Your task to perform on an android device: delete a single message in the gmail app Image 0: 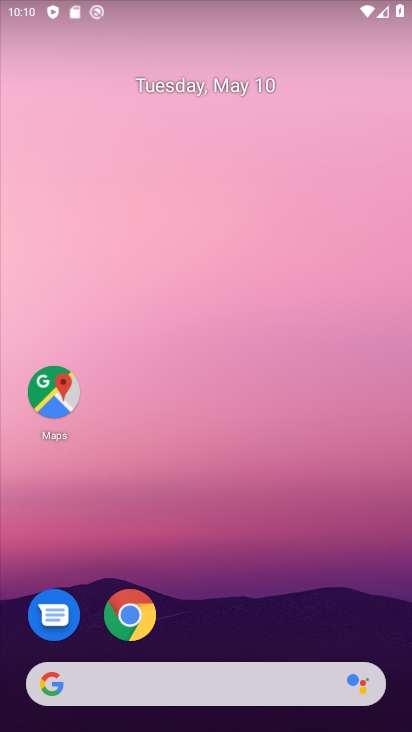
Step 0: drag from (259, 608) to (126, 113)
Your task to perform on an android device: delete a single message in the gmail app Image 1: 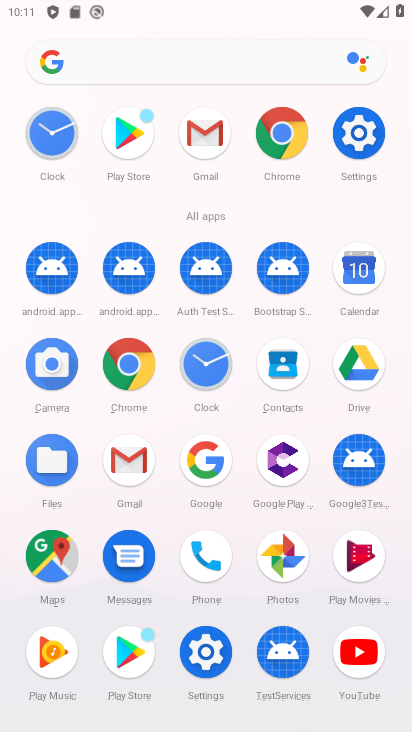
Step 1: click (210, 131)
Your task to perform on an android device: delete a single message in the gmail app Image 2: 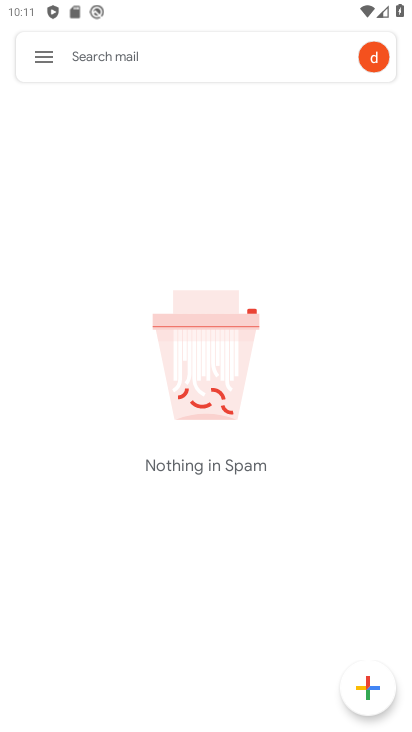
Step 2: click (49, 56)
Your task to perform on an android device: delete a single message in the gmail app Image 3: 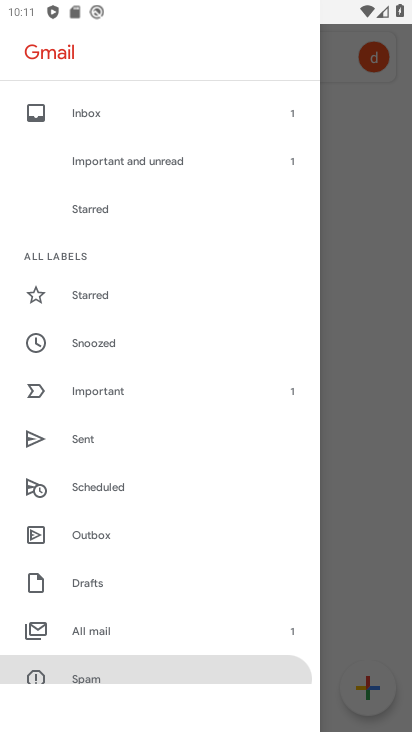
Step 3: click (91, 112)
Your task to perform on an android device: delete a single message in the gmail app Image 4: 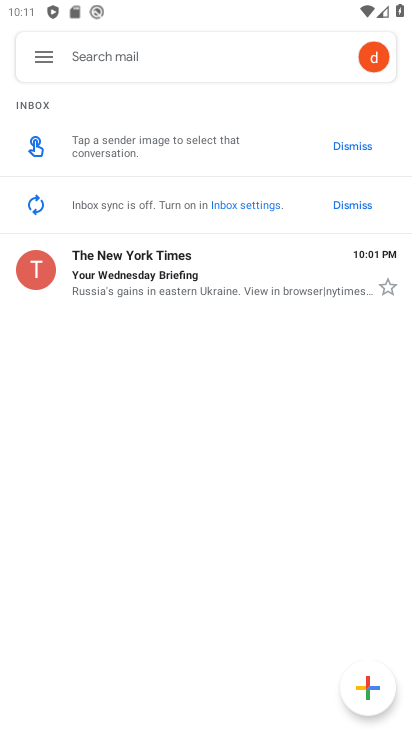
Step 4: click (152, 283)
Your task to perform on an android device: delete a single message in the gmail app Image 5: 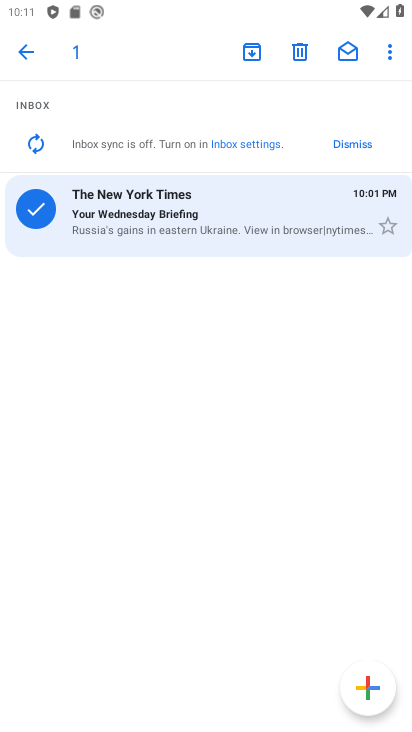
Step 5: click (297, 51)
Your task to perform on an android device: delete a single message in the gmail app Image 6: 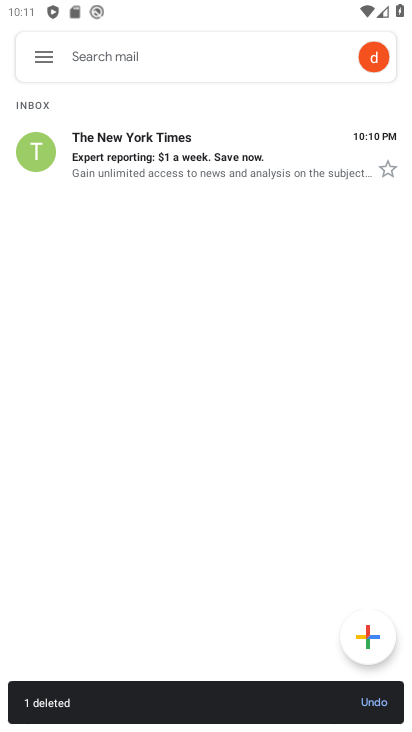
Step 6: task complete